Your task to perform on an android device: set the timer Image 0: 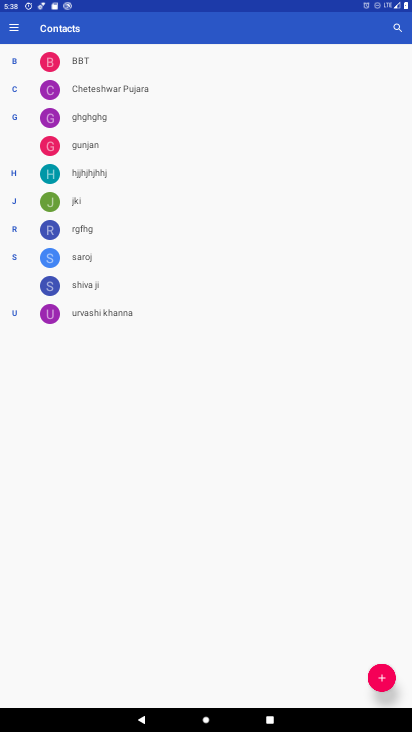
Step 0: press home button
Your task to perform on an android device: set the timer Image 1: 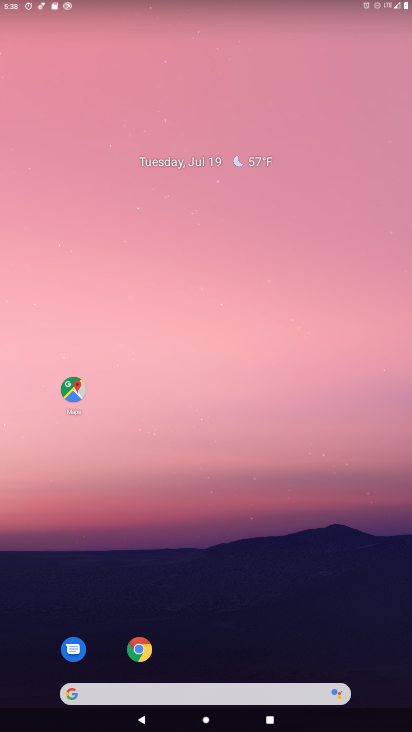
Step 1: drag from (195, 654) to (195, 5)
Your task to perform on an android device: set the timer Image 2: 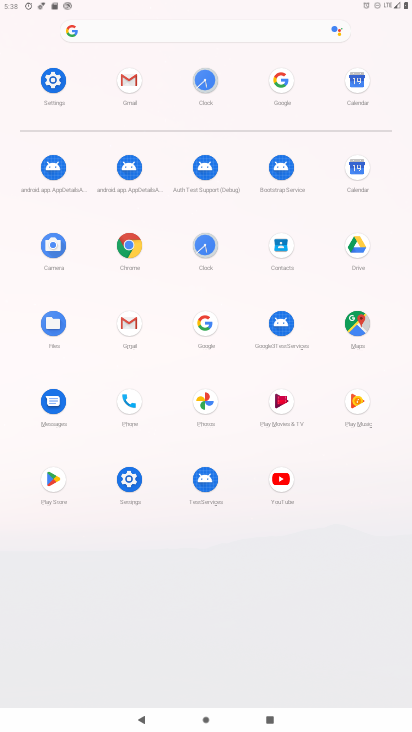
Step 2: click (203, 249)
Your task to perform on an android device: set the timer Image 3: 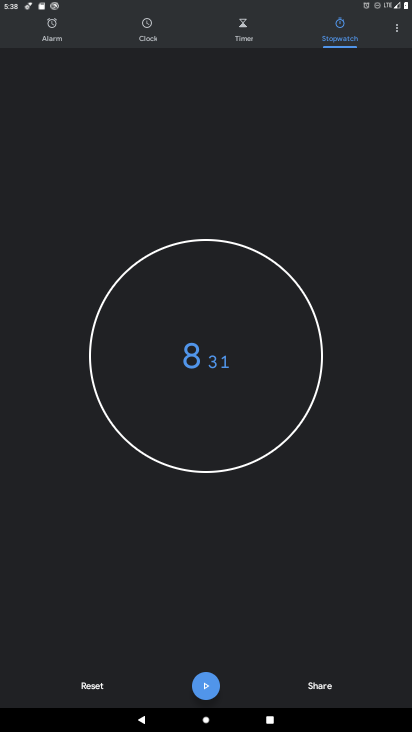
Step 3: click (243, 31)
Your task to perform on an android device: set the timer Image 4: 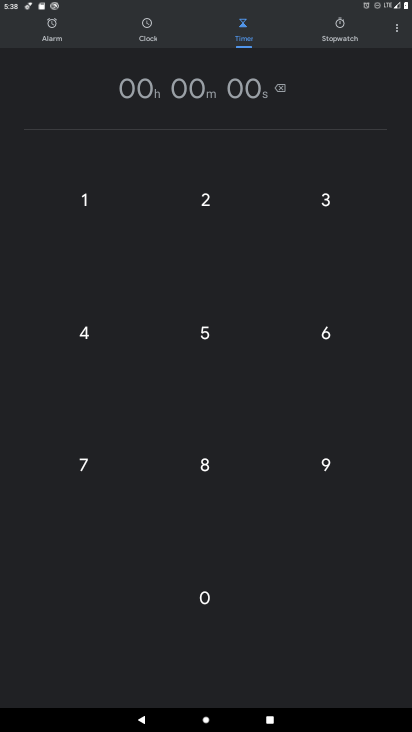
Step 4: click (199, 203)
Your task to perform on an android device: set the timer Image 5: 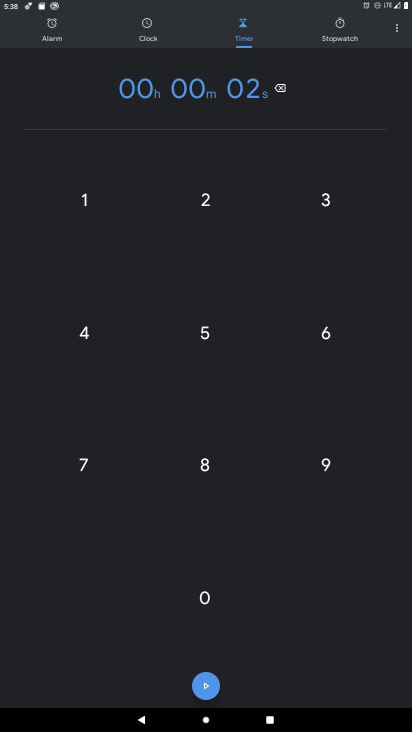
Step 5: click (211, 608)
Your task to perform on an android device: set the timer Image 6: 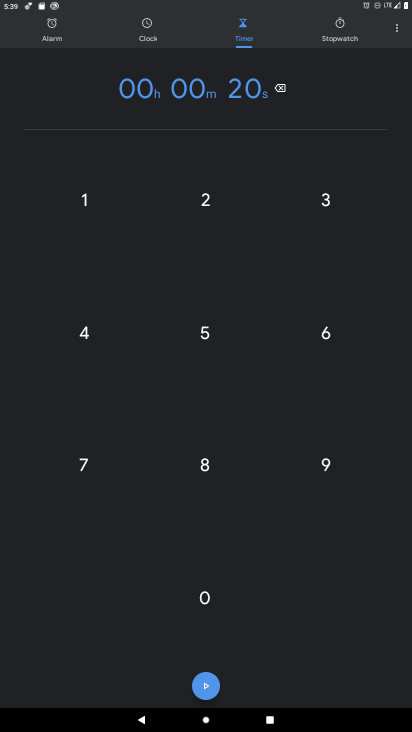
Step 6: click (205, 213)
Your task to perform on an android device: set the timer Image 7: 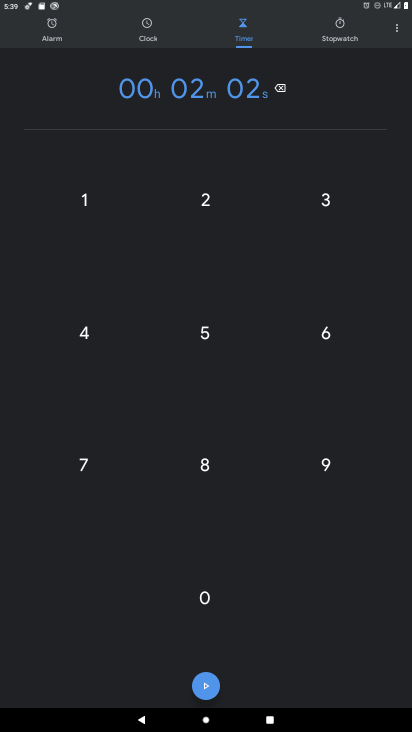
Step 7: click (198, 587)
Your task to perform on an android device: set the timer Image 8: 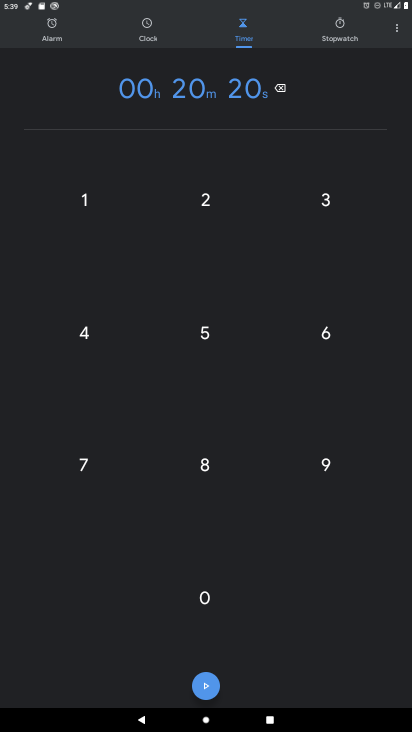
Step 8: click (206, 699)
Your task to perform on an android device: set the timer Image 9: 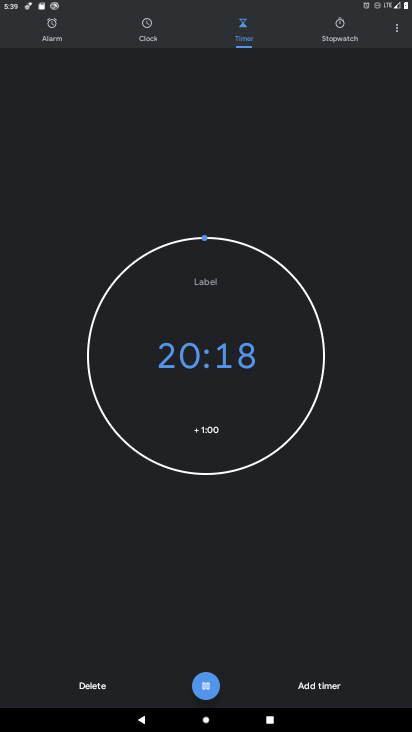
Step 9: click (309, 689)
Your task to perform on an android device: set the timer Image 10: 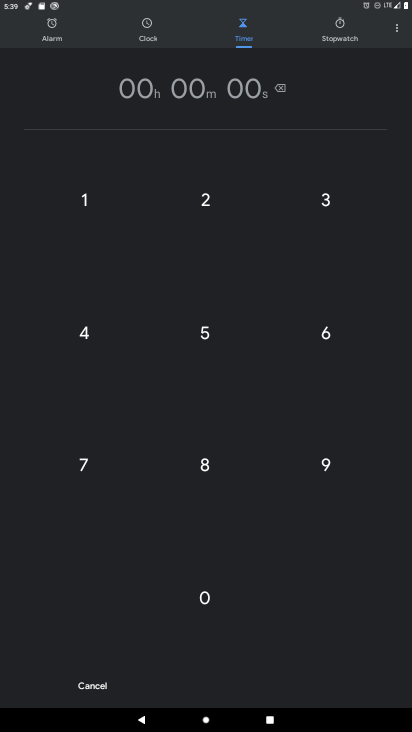
Step 10: task complete